Your task to perform on an android device: install app "Chime – Mobile Banking" Image 0: 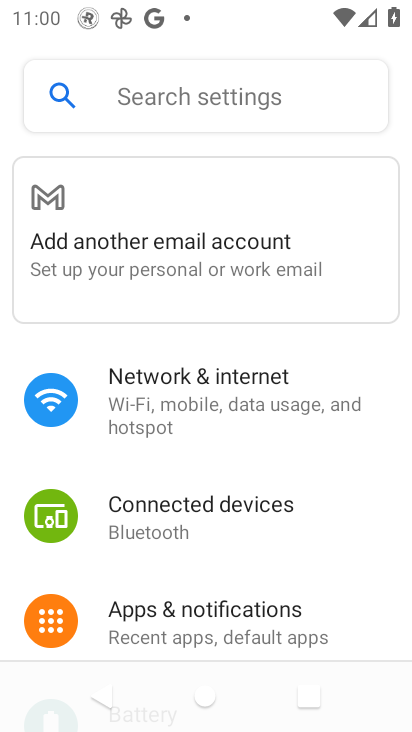
Step 0: press back button
Your task to perform on an android device: install app "Chime – Mobile Banking" Image 1: 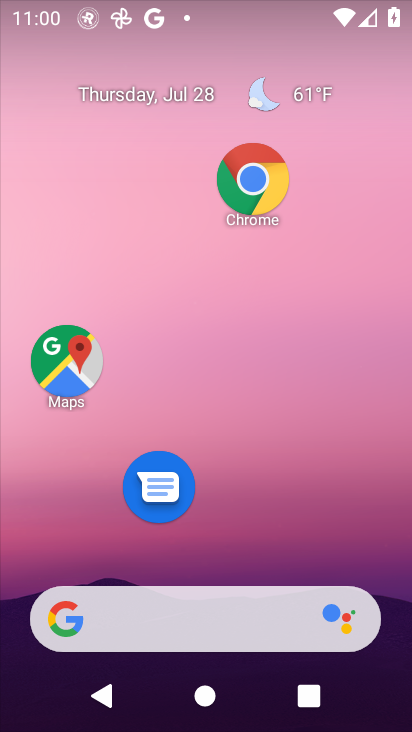
Step 1: drag from (216, 103) to (211, 60)
Your task to perform on an android device: install app "Chime – Mobile Banking" Image 2: 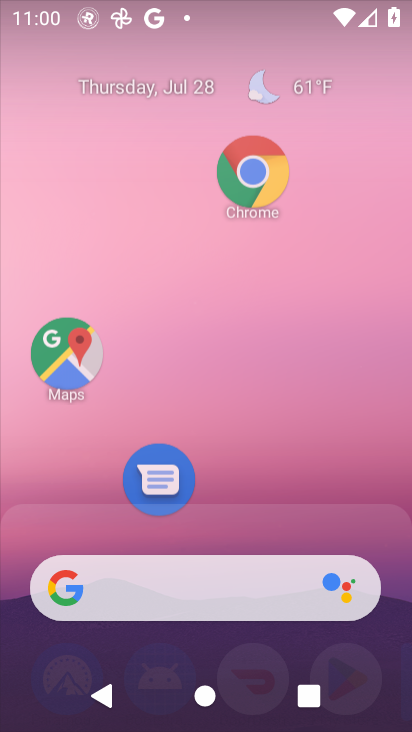
Step 2: drag from (192, 534) to (139, 254)
Your task to perform on an android device: install app "Chime – Mobile Banking" Image 3: 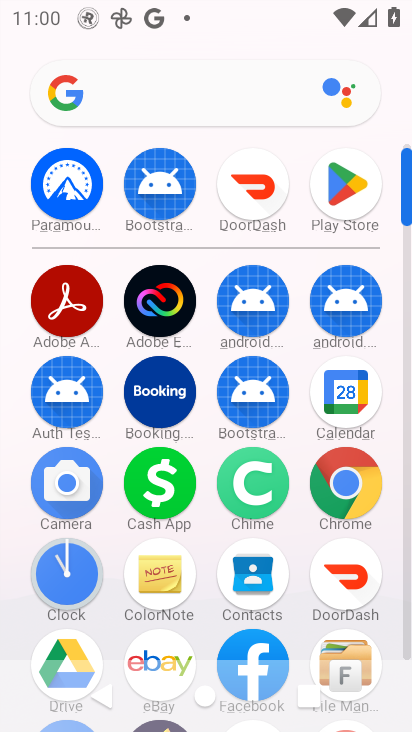
Step 3: drag from (222, 459) to (198, 201)
Your task to perform on an android device: install app "Chime – Mobile Banking" Image 4: 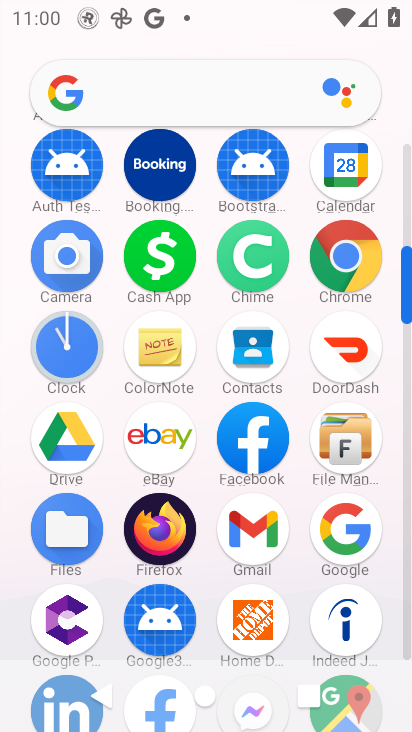
Step 4: drag from (294, 250) to (293, 478)
Your task to perform on an android device: install app "Chime – Mobile Banking" Image 5: 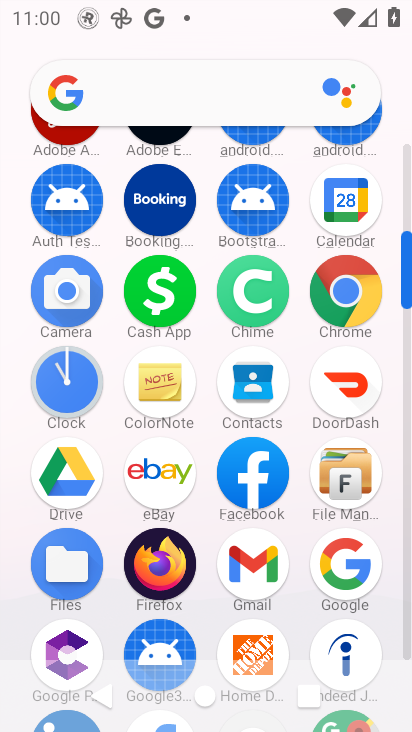
Step 5: drag from (298, 261) to (299, 403)
Your task to perform on an android device: install app "Chime – Mobile Banking" Image 6: 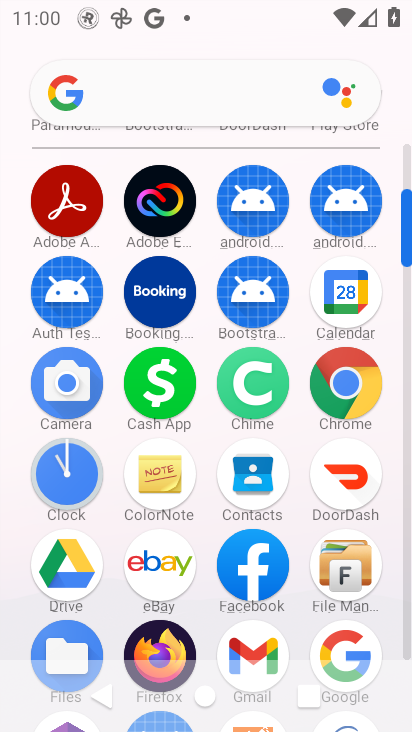
Step 6: click (282, 437)
Your task to perform on an android device: install app "Chime – Mobile Banking" Image 7: 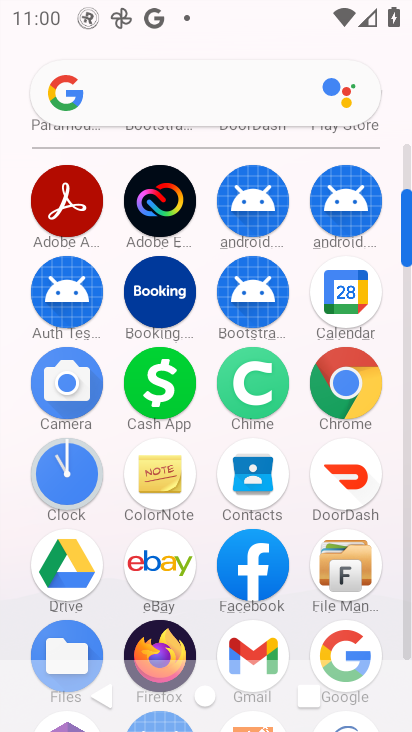
Step 7: drag from (302, 245) to (319, 360)
Your task to perform on an android device: install app "Chime – Mobile Banking" Image 8: 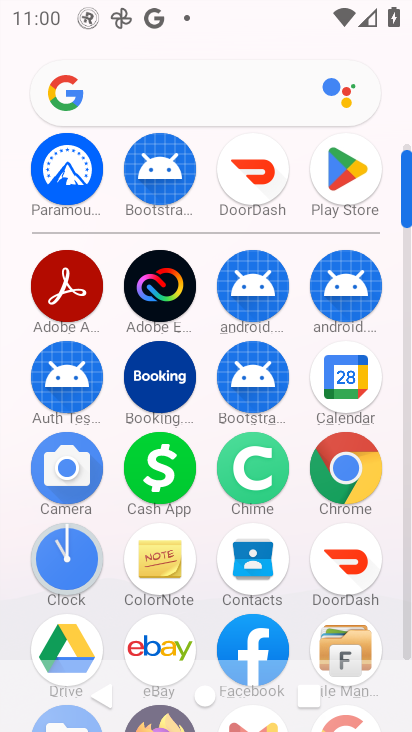
Step 8: drag from (320, 303) to (328, 344)
Your task to perform on an android device: install app "Chime – Mobile Banking" Image 9: 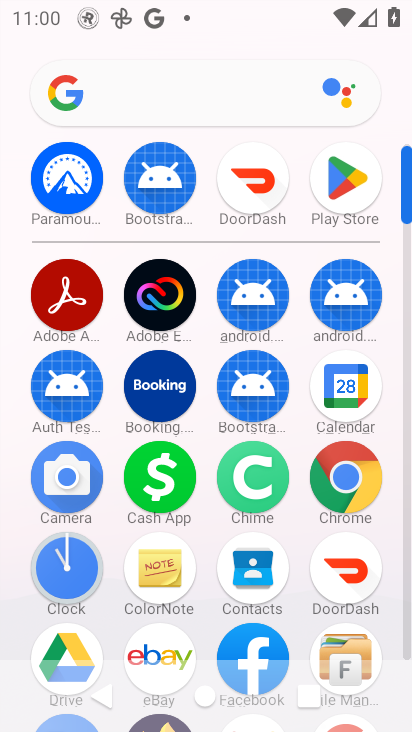
Step 9: click (342, 151)
Your task to perform on an android device: install app "Chime – Mobile Banking" Image 10: 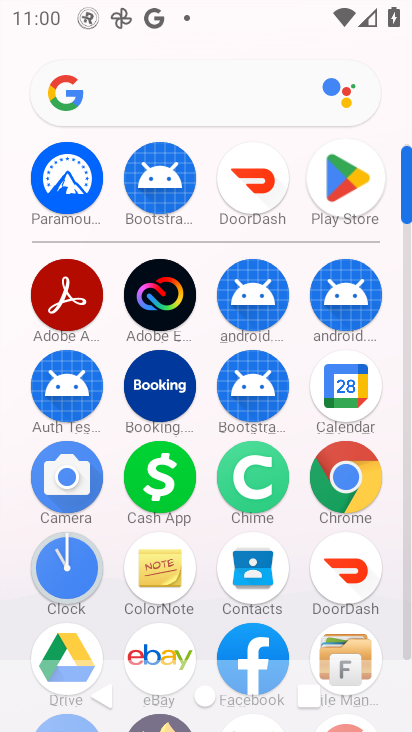
Step 10: click (339, 169)
Your task to perform on an android device: install app "Chime – Mobile Banking" Image 11: 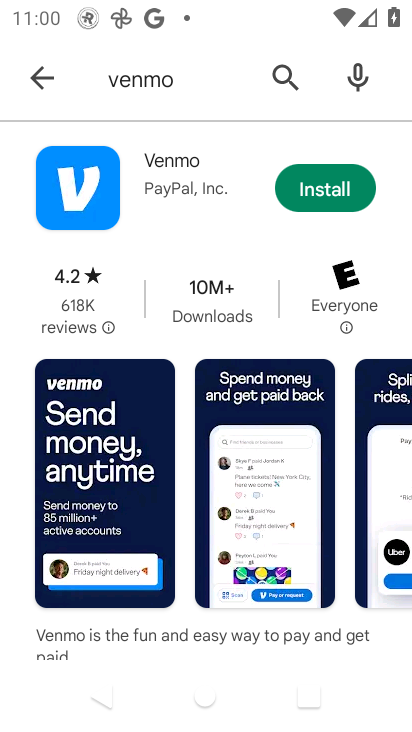
Step 11: click (315, 184)
Your task to perform on an android device: install app "Chime – Mobile Banking" Image 12: 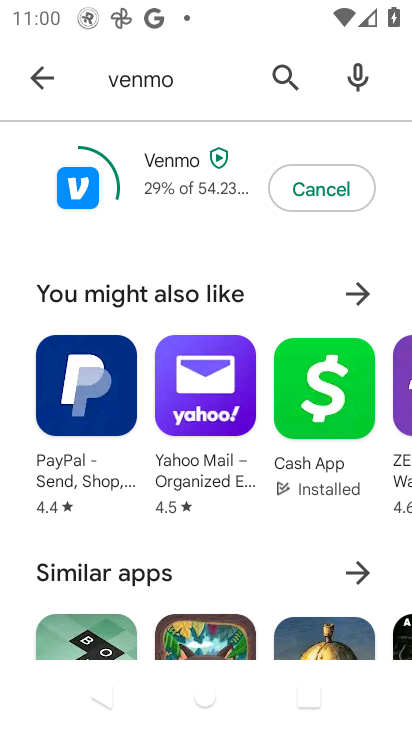
Step 12: click (38, 90)
Your task to perform on an android device: install app "Chime – Mobile Banking" Image 13: 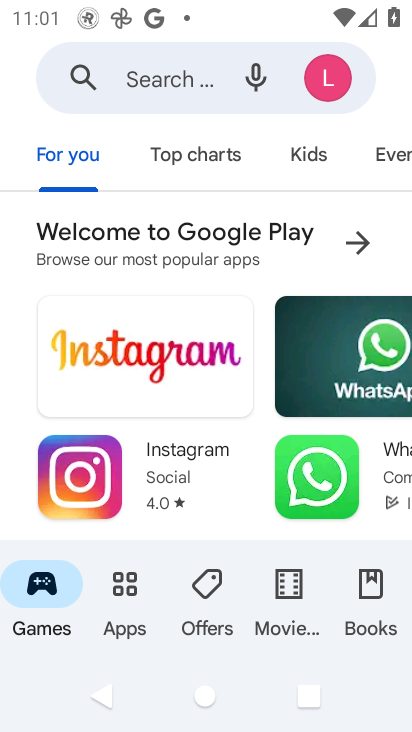
Step 13: click (148, 81)
Your task to perform on an android device: install app "Chime – Mobile Banking" Image 14: 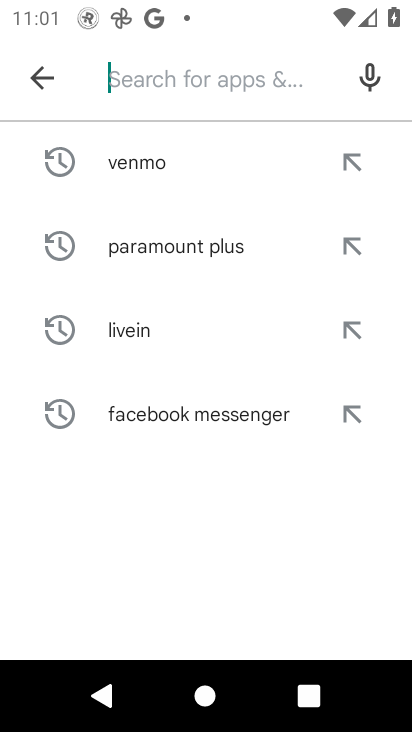
Step 14: type "Chime- Mobile Banking"
Your task to perform on an android device: install app "Chime – Mobile Banking" Image 15: 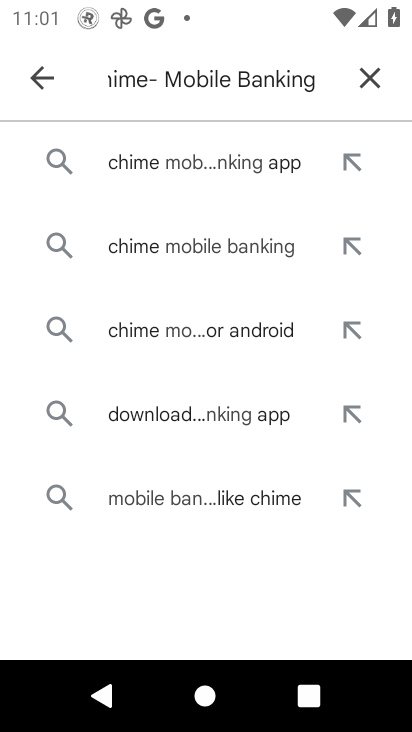
Step 15: click (206, 151)
Your task to perform on an android device: install app "Chime – Mobile Banking" Image 16: 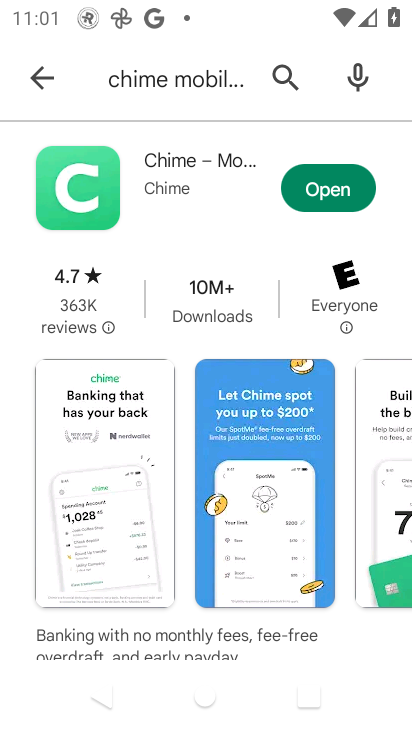
Step 16: click (331, 203)
Your task to perform on an android device: install app "Chime – Mobile Banking" Image 17: 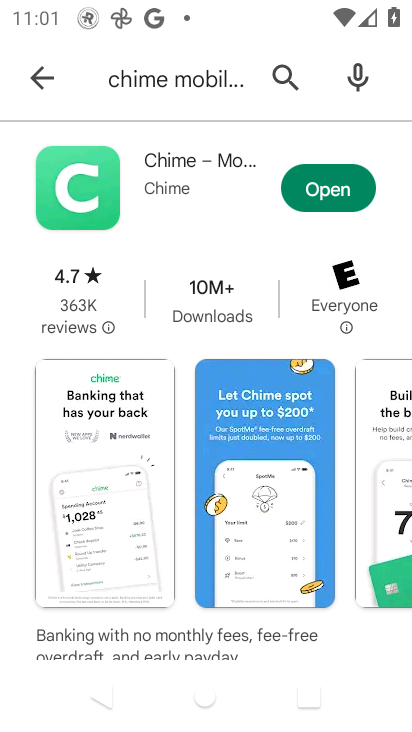
Step 17: click (331, 196)
Your task to perform on an android device: install app "Chime – Mobile Banking" Image 18: 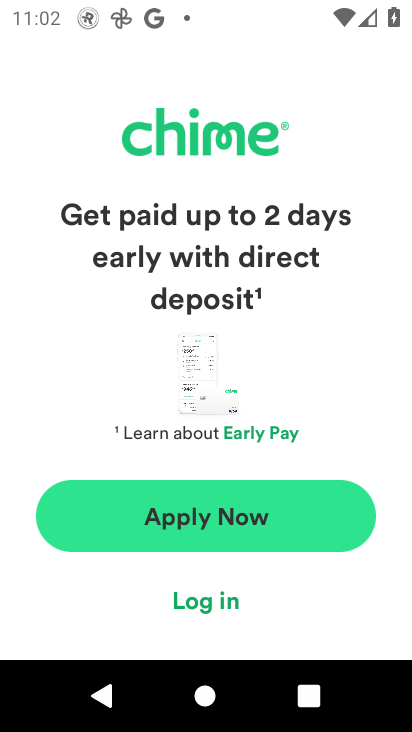
Step 18: click (192, 598)
Your task to perform on an android device: install app "Chime – Mobile Banking" Image 19: 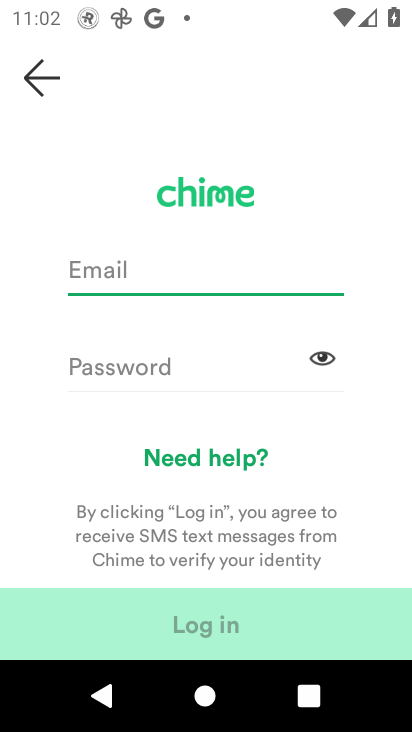
Step 19: task complete